Your task to perform on an android device: See recent photos Image 0: 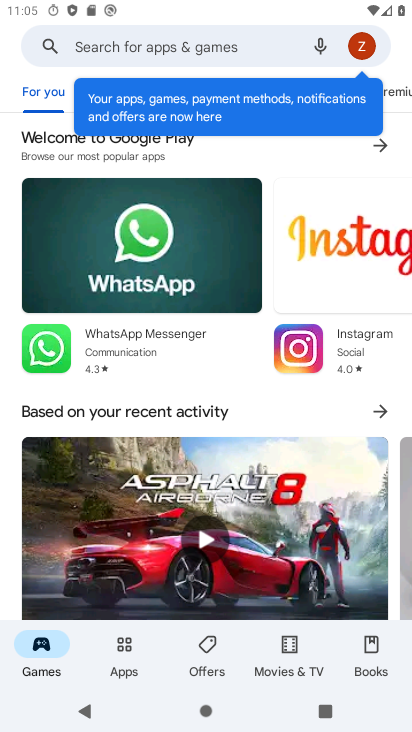
Step 0: press home button
Your task to perform on an android device: See recent photos Image 1: 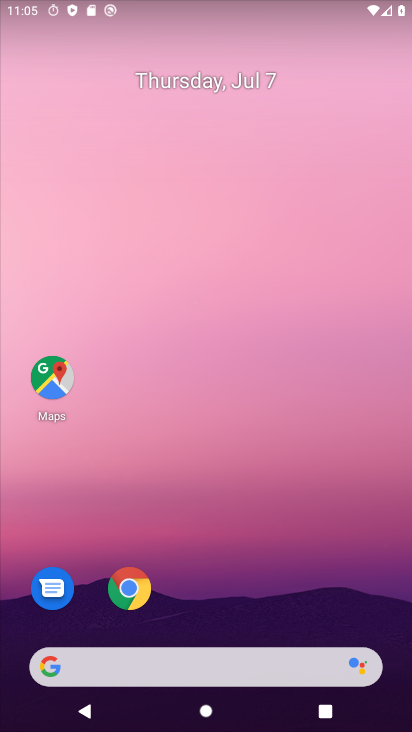
Step 1: drag from (256, 514) to (239, 167)
Your task to perform on an android device: See recent photos Image 2: 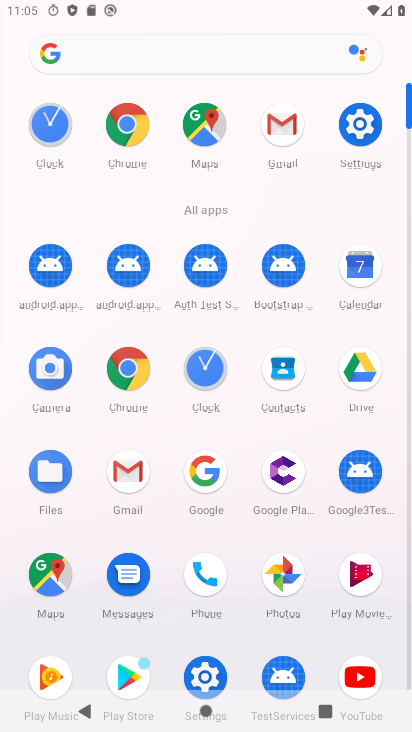
Step 2: click (287, 574)
Your task to perform on an android device: See recent photos Image 3: 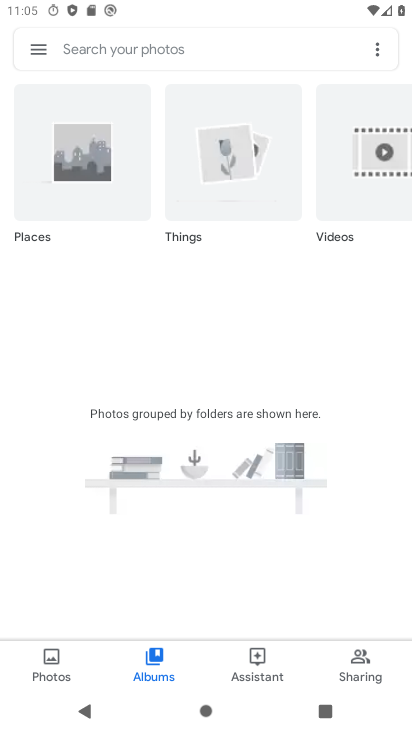
Step 3: click (60, 672)
Your task to perform on an android device: See recent photos Image 4: 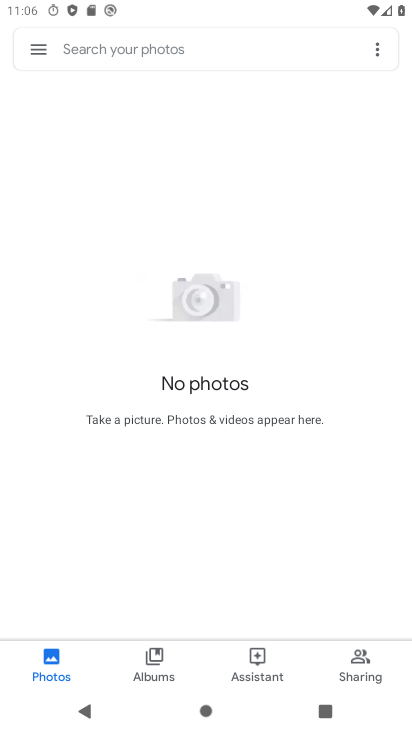
Step 4: task complete